Your task to perform on an android device: change notifications settings Image 0: 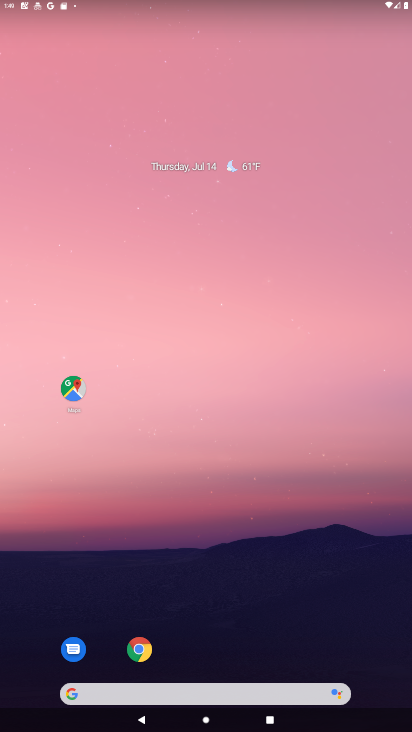
Step 0: drag from (312, 650) to (363, 62)
Your task to perform on an android device: change notifications settings Image 1: 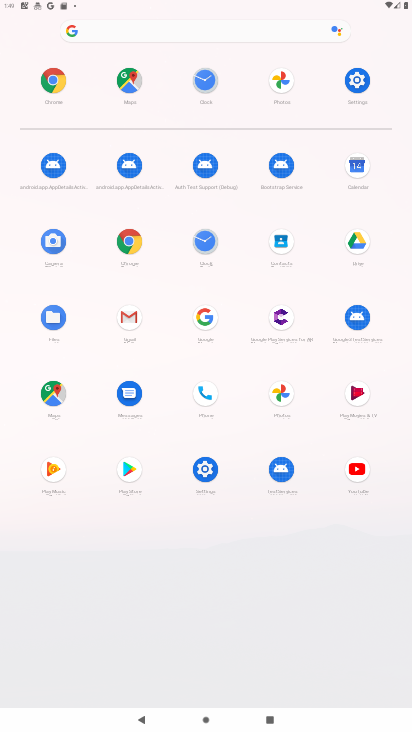
Step 1: click (363, 87)
Your task to perform on an android device: change notifications settings Image 2: 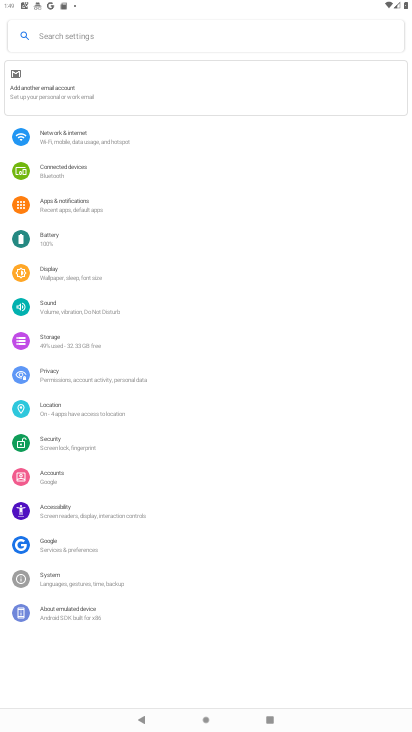
Step 2: click (56, 200)
Your task to perform on an android device: change notifications settings Image 3: 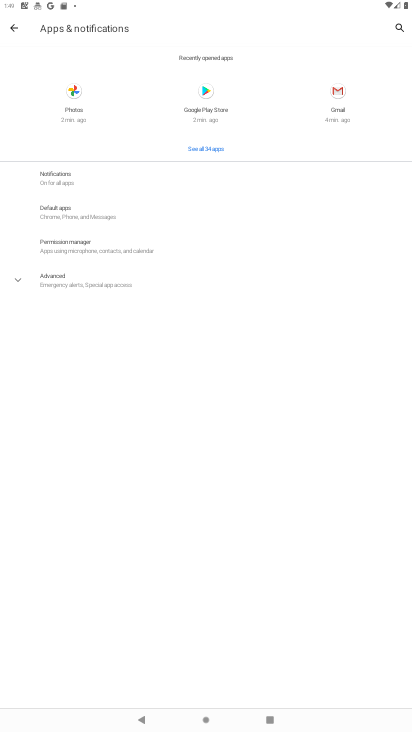
Step 3: click (69, 185)
Your task to perform on an android device: change notifications settings Image 4: 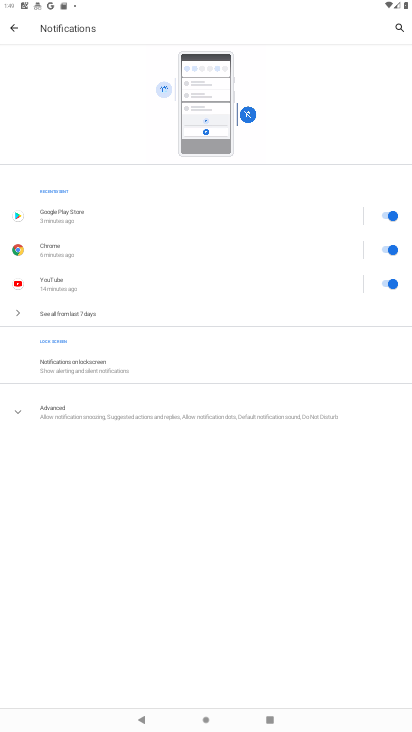
Step 4: click (385, 218)
Your task to perform on an android device: change notifications settings Image 5: 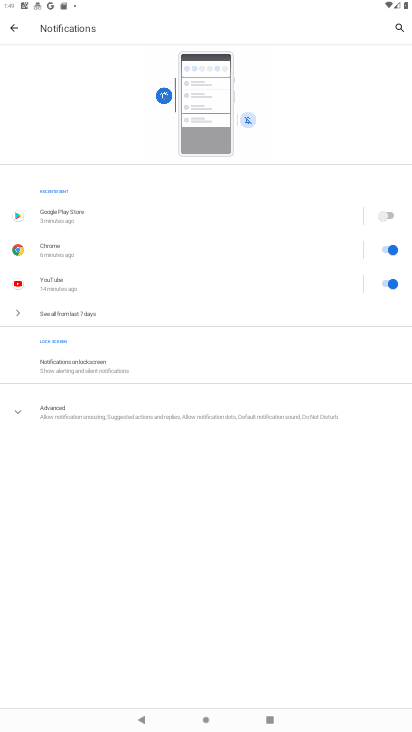
Step 5: task complete